Your task to perform on an android device: Open accessibility settings Image 0: 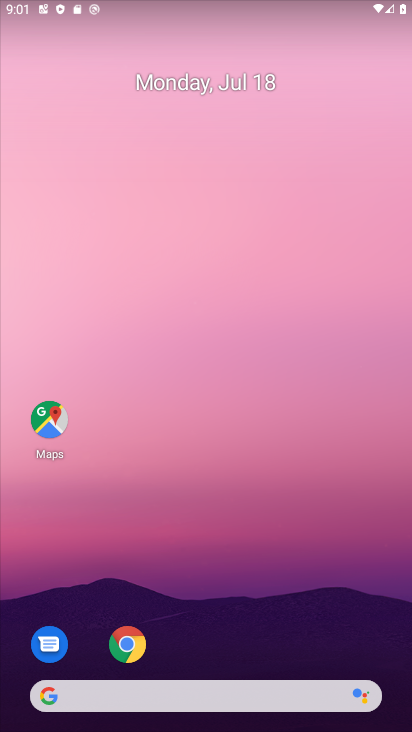
Step 0: drag from (235, 617) to (214, 19)
Your task to perform on an android device: Open accessibility settings Image 1: 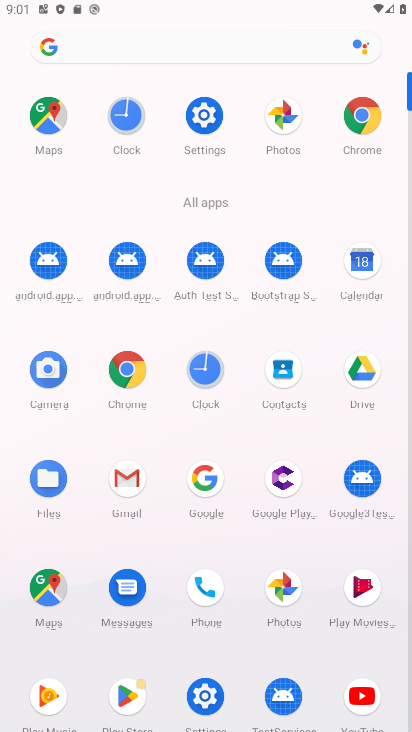
Step 1: click (202, 111)
Your task to perform on an android device: Open accessibility settings Image 2: 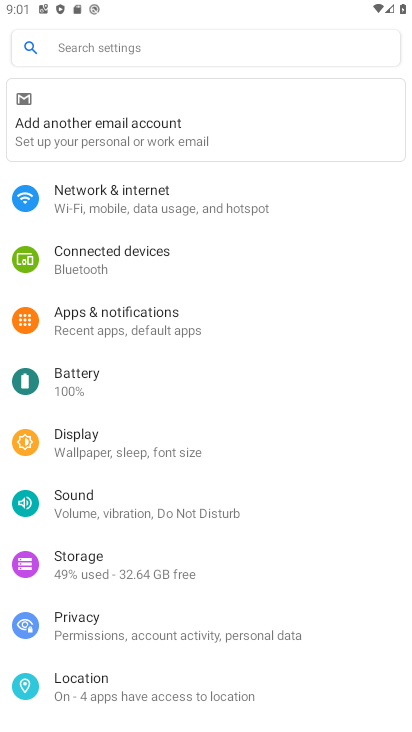
Step 2: drag from (132, 637) to (217, 97)
Your task to perform on an android device: Open accessibility settings Image 3: 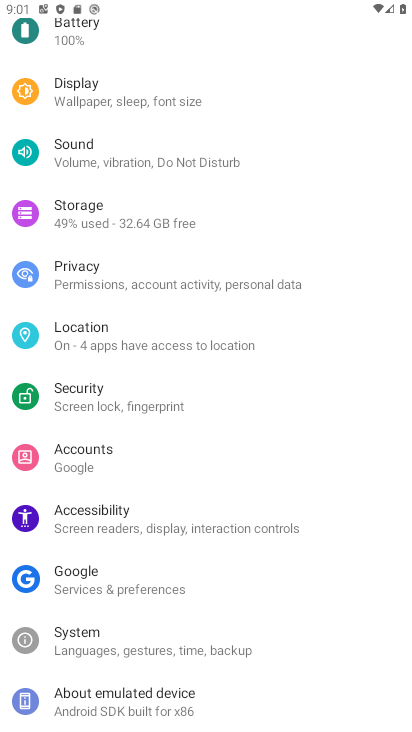
Step 3: click (109, 513)
Your task to perform on an android device: Open accessibility settings Image 4: 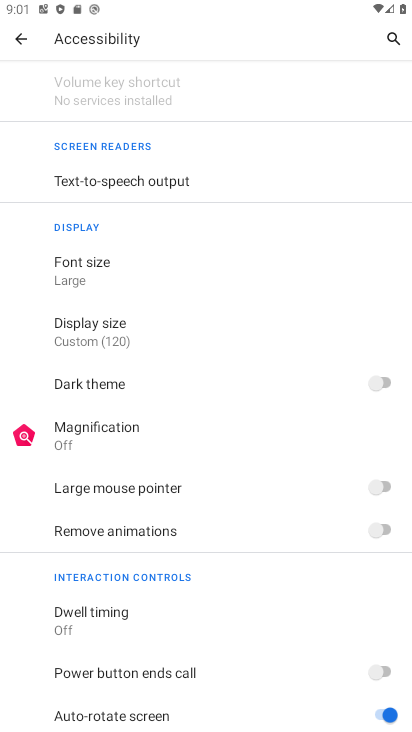
Step 4: task complete